Your task to perform on an android device: Open Amazon Image 0: 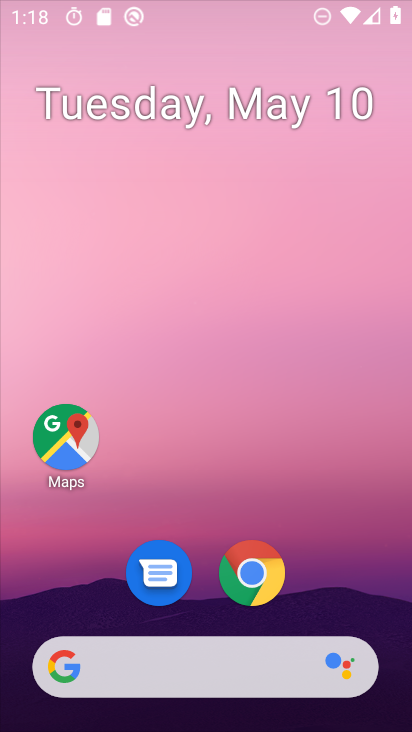
Step 0: drag from (309, 549) to (287, 154)
Your task to perform on an android device: Open Amazon Image 1: 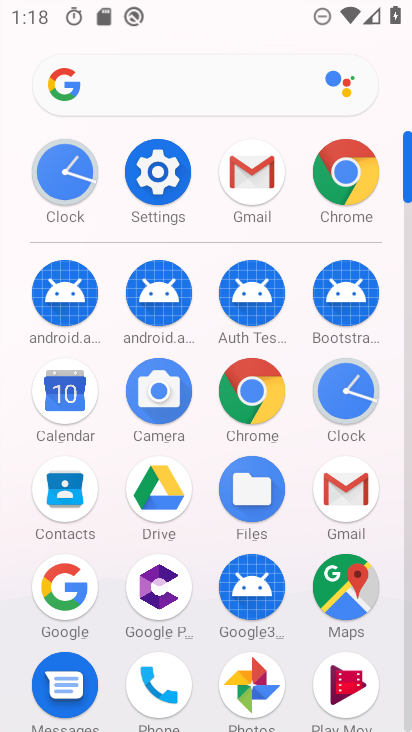
Step 1: click (349, 162)
Your task to perform on an android device: Open Amazon Image 2: 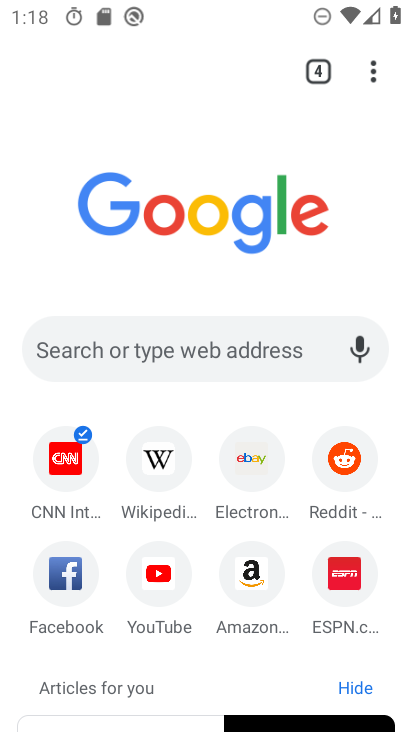
Step 2: click (269, 581)
Your task to perform on an android device: Open Amazon Image 3: 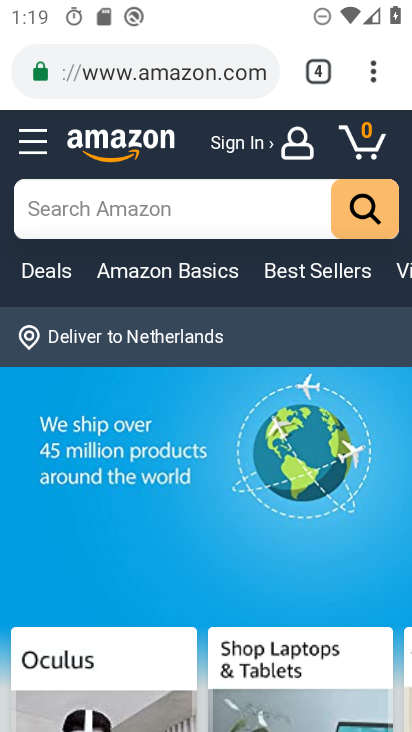
Step 3: task complete